Your task to perform on an android device: toggle notifications settings in the gmail app Image 0: 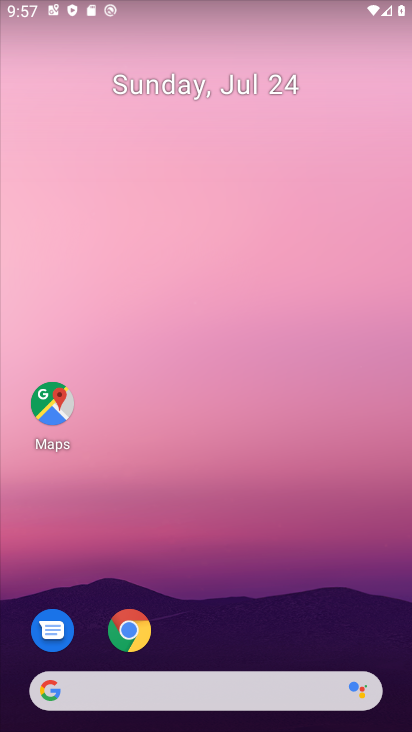
Step 0: drag from (223, 621) to (214, 18)
Your task to perform on an android device: toggle notifications settings in the gmail app Image 1: 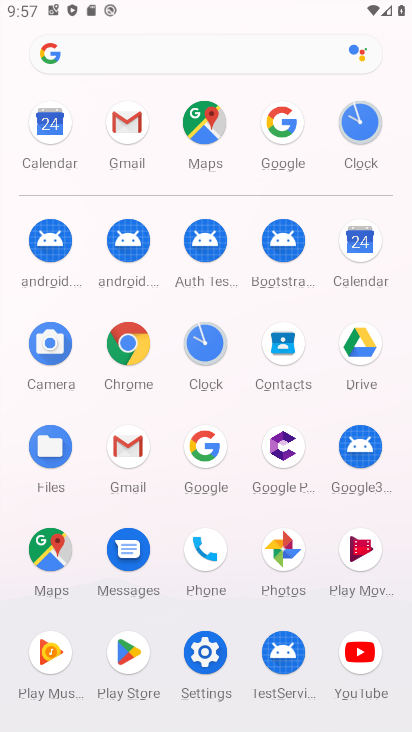
Step 1: click (127, 124)
Your task to perform on an android device: toggle notifications settings in the gmail app Image 2: 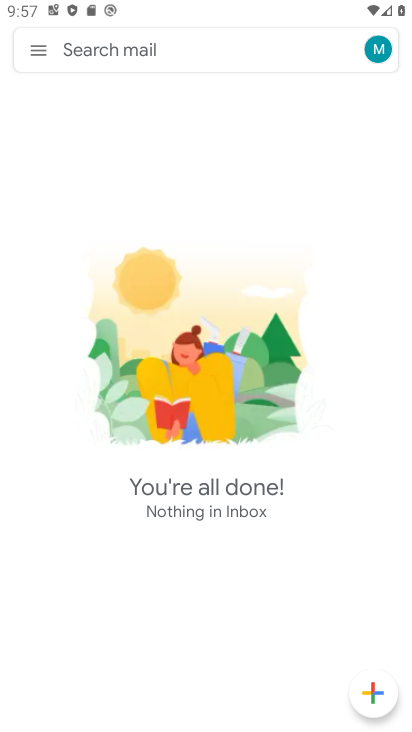
Step 2: click (30, 44)
Your task to perform on an android device: toggle notifications settings in the gmail app Image 3: 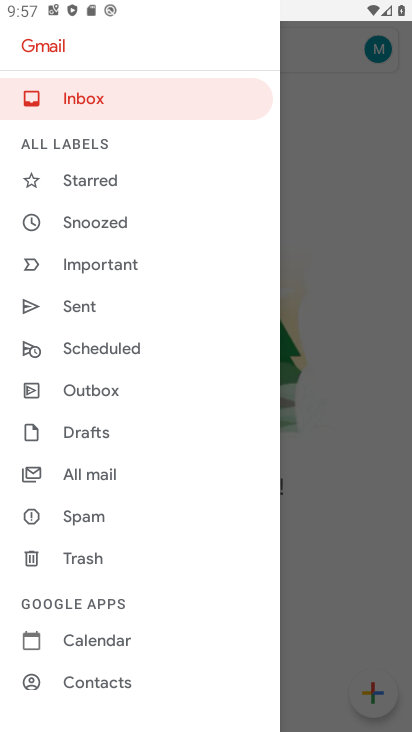
Step 3: drag from (111, 662) to (87, 294)
Your task to perform on an android device: toggle notifications settings in the gmail app Image 4: 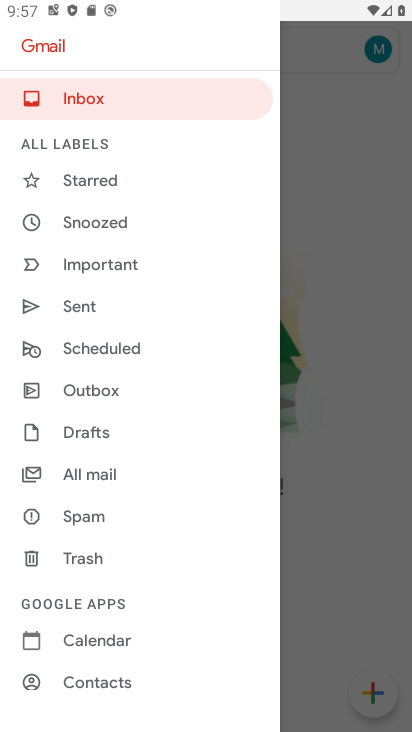
Step 4: drag from (148, 635) to (135, 213)
Your task to perform on an android device: toggle notifications settings in the gmail app Image 5: 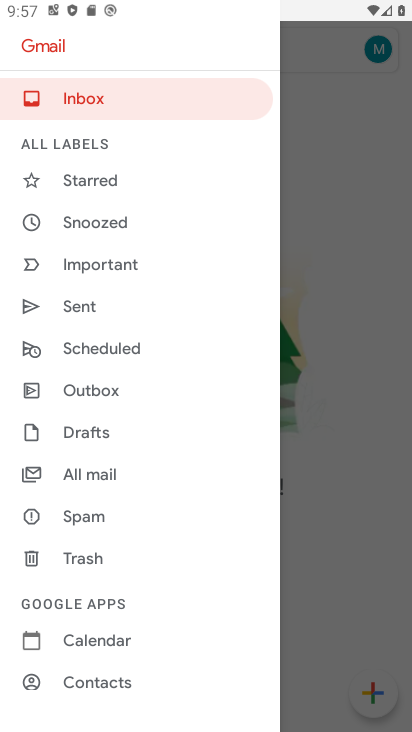
Step 5: drag from (76, 614) to (105, 181)
Your task to perform on an android device: toggle notifications settings in the gmail app Image 6: 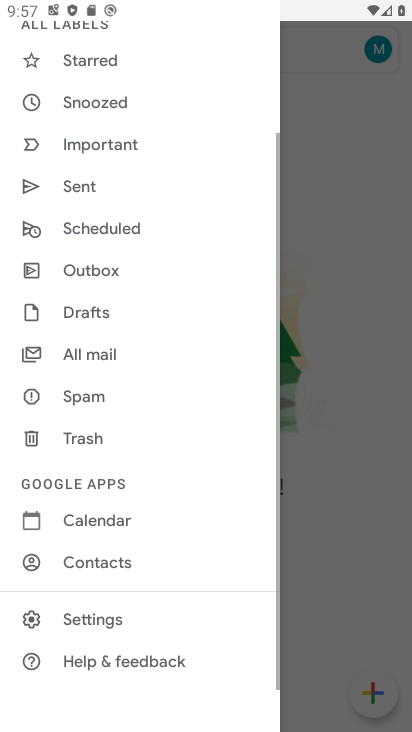
Step 6: click (122, 608)
Your task to perform on an android device: toggle notifications settings in the gmail app Image 7: 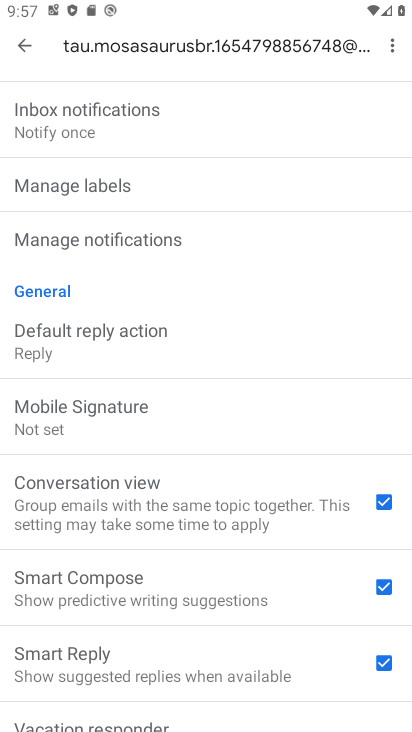
Step 7: click (153, 242)
Your task to perform on an android device: toggle notifications settings in the gmail app Image 8: 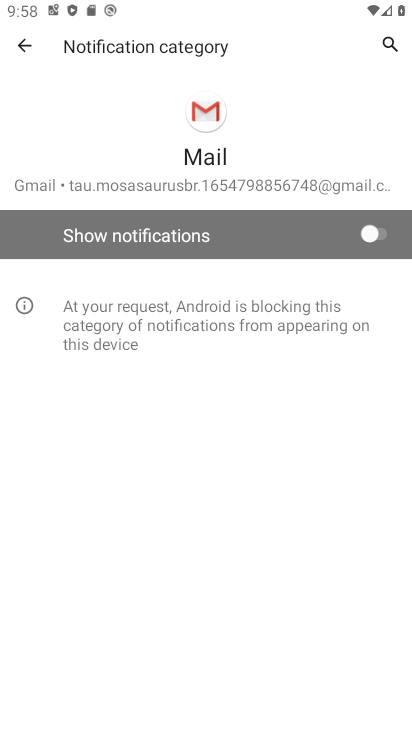
Step 8: click (370, 233)
Your task to perform on an android device: toggle notifications settings in the gmail app Image 9: 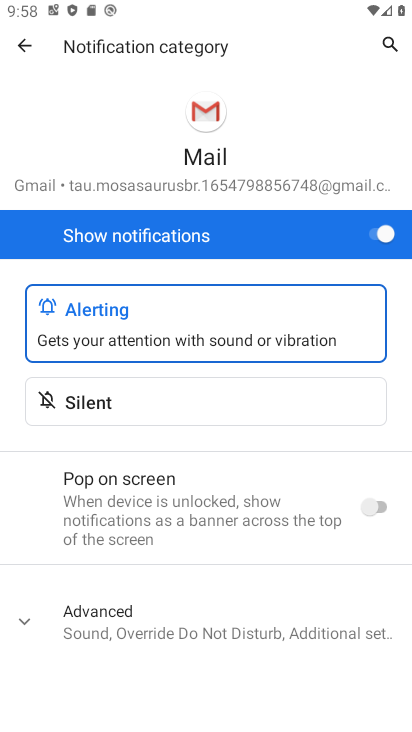
Step 9: task complete